Your task to perform on an android device: View the shopping cart on walmart.com. Search for "macbook pro 13 inch" on walmart.com, select the first entry, add it to the cart, then select checkout. Image 0: 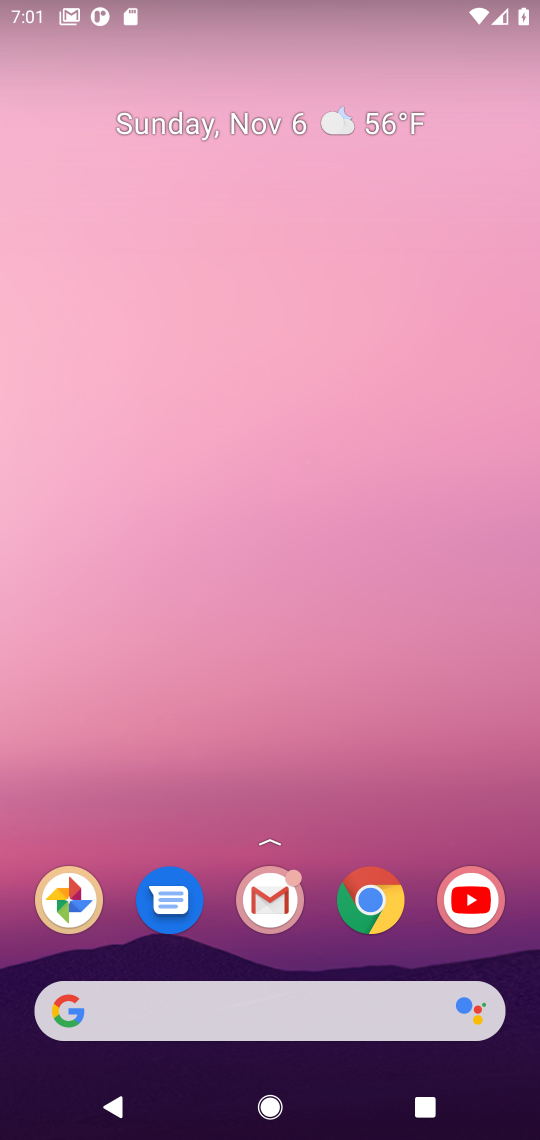
Step 0: drag from (334, 895) to (409, 99)
Your task to perform on an android device: View the shopping cart on walmart.com. Search for "macbook pro 13 inch" on walmart.com, select the first entry, add it to the cart, then select checkout. Image 1: 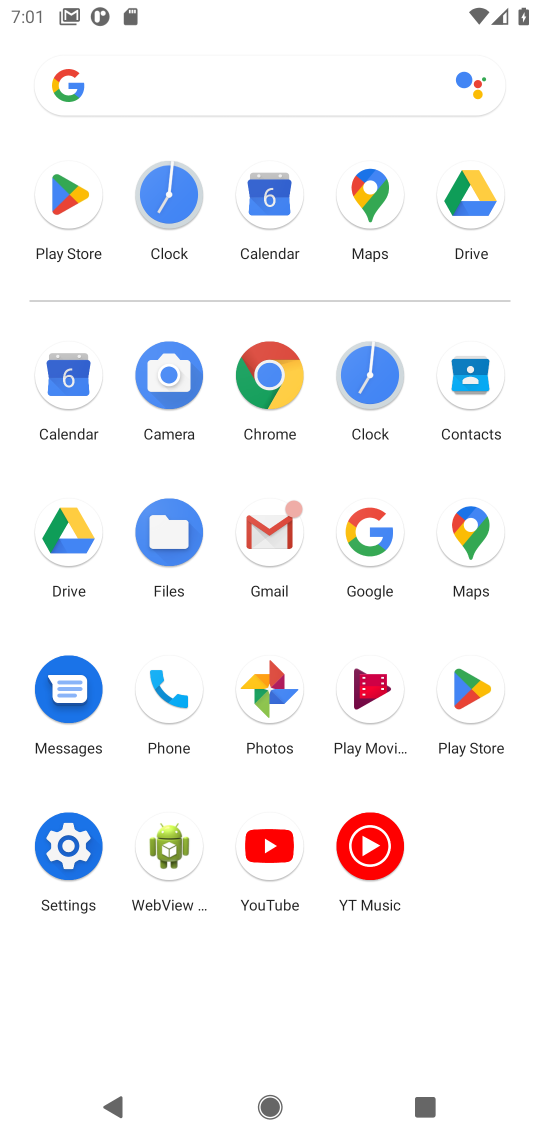
Step 1: click (275, 374)
Your task to perform on an android device: View the shopping cart on walmart.com. Search for "macbook pro 13 inch" on walmart.com, select the first entry, add it to the cart, then select checkout. Image 2: 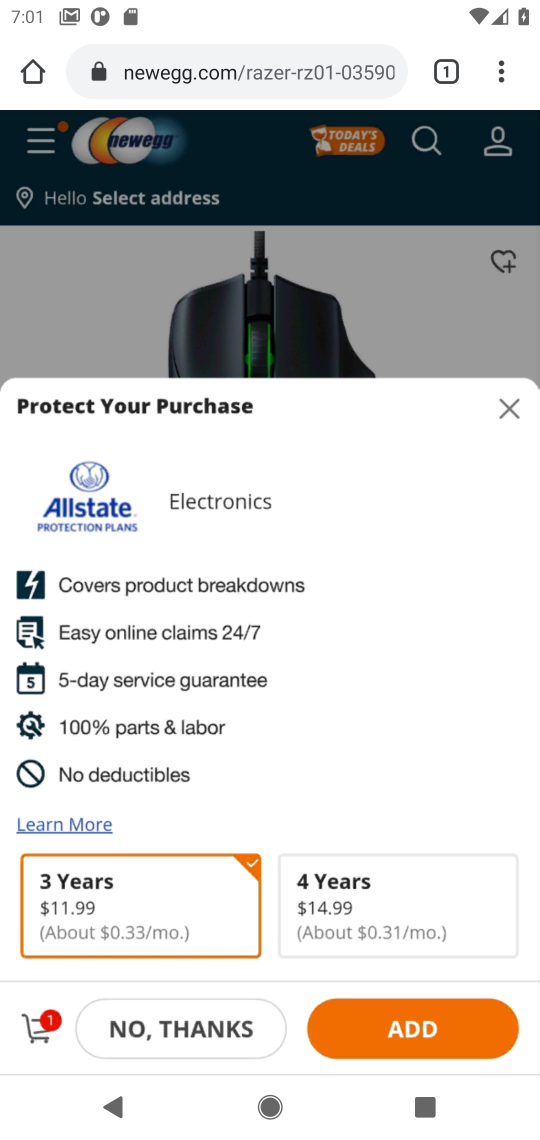
Step 2: click (338, 77)
Your task to perform on an android device: View the shopping cart on walmart.com. Search for "macbook pro 13 inch" on walmart.com, select the first entry, add it to the cart, then select checkout. Image 3: 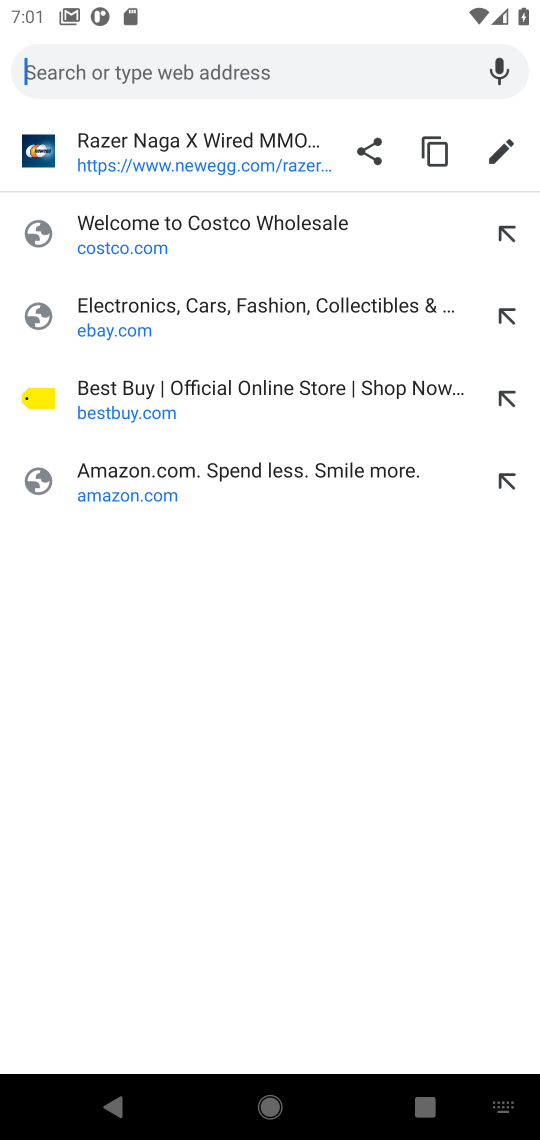
Step 3: type "walmart.com"
Your task to perform on an android device: View the shopping cart on walmart.com. Search for "macbook pro 13 inch" on walmart.com, select the first entry, add it to the cart, then select checkout. Image 4: 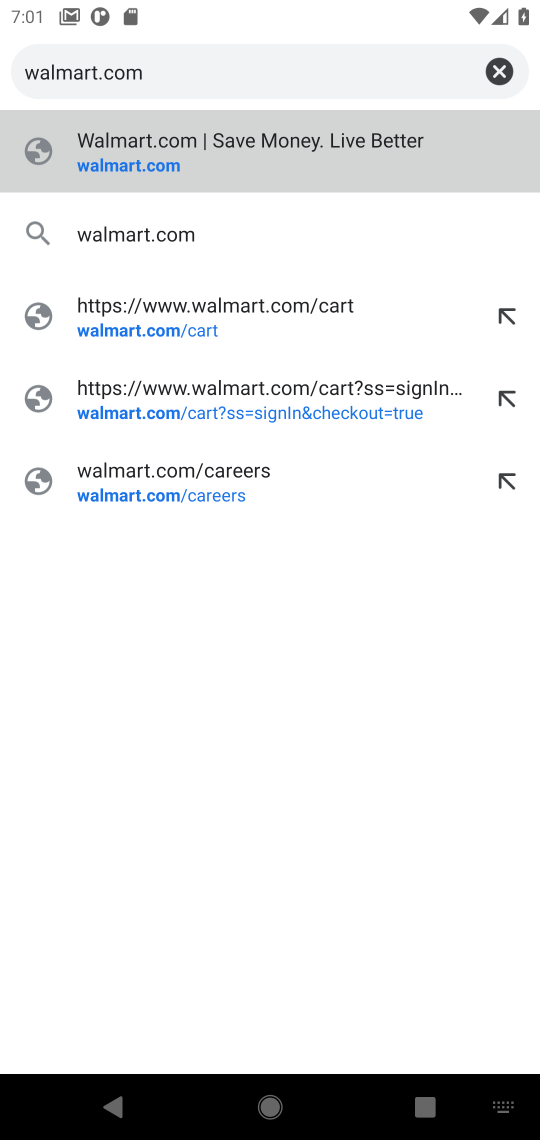
Step 4: press enter
Your task to perform on an android device: View the shopping cart on walmart.com. Search for "macbook pro 13 inch" on walmart.com, select the first entry, add it to the cart, then select checkout. Image 5: 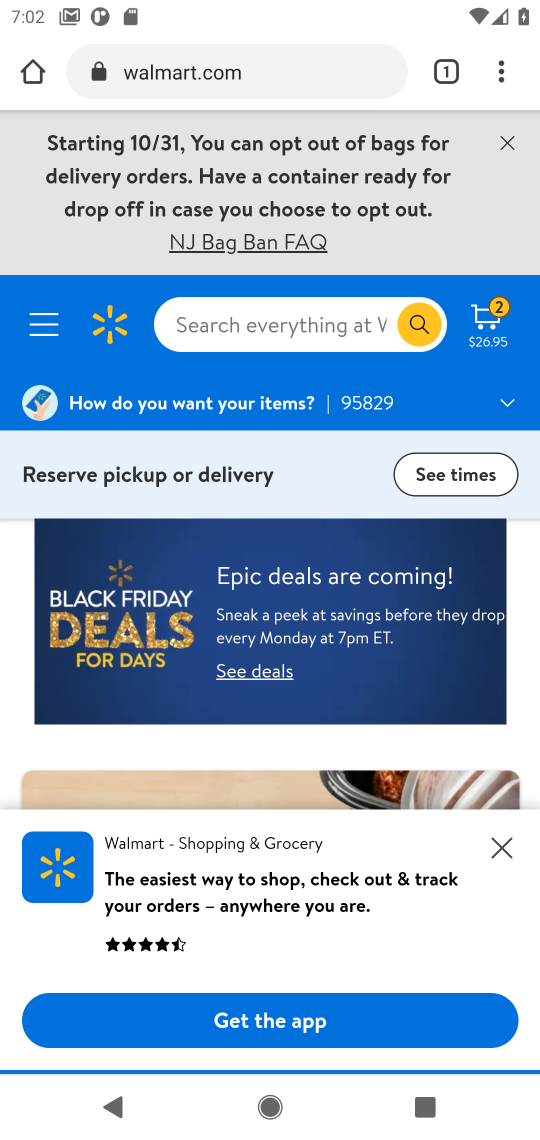
Step 5: click (322, 319)
Your task to perform on an android device: View the shopping cart on walmart.com. Search for "macbook pro 13 inch" on walmart.com, select the first entry, add it to the cart, then select checkout. Image 6: 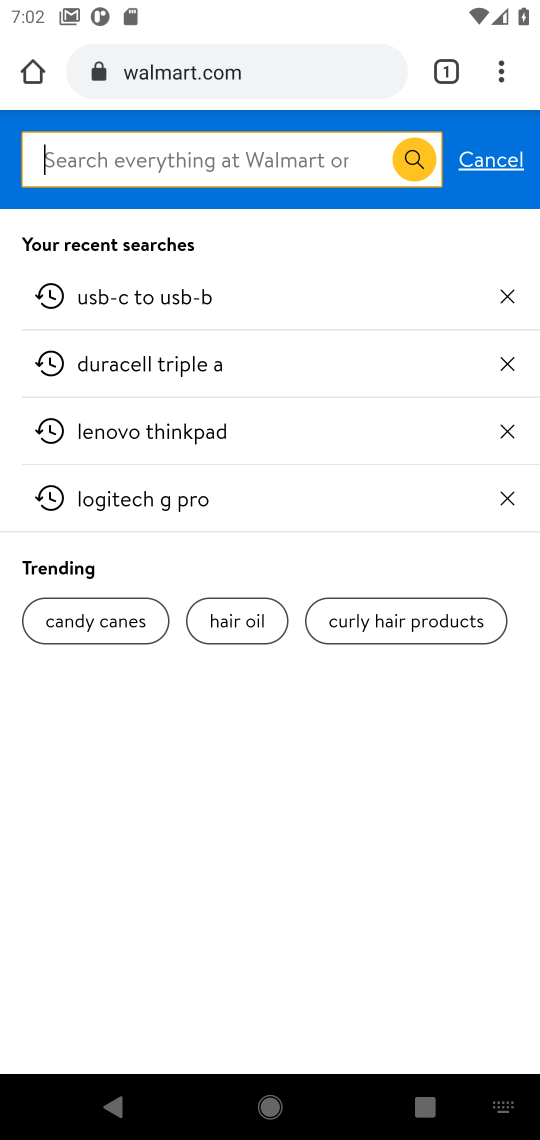
Step 6: type "macbook pro 13 inch"
Your task to perform on an android device: View the shopping cart on walmart.com. Search for "macbook pro 13 inch" on walmart.com, select the first entry, add it to the cart, then select checkout. Image 7: 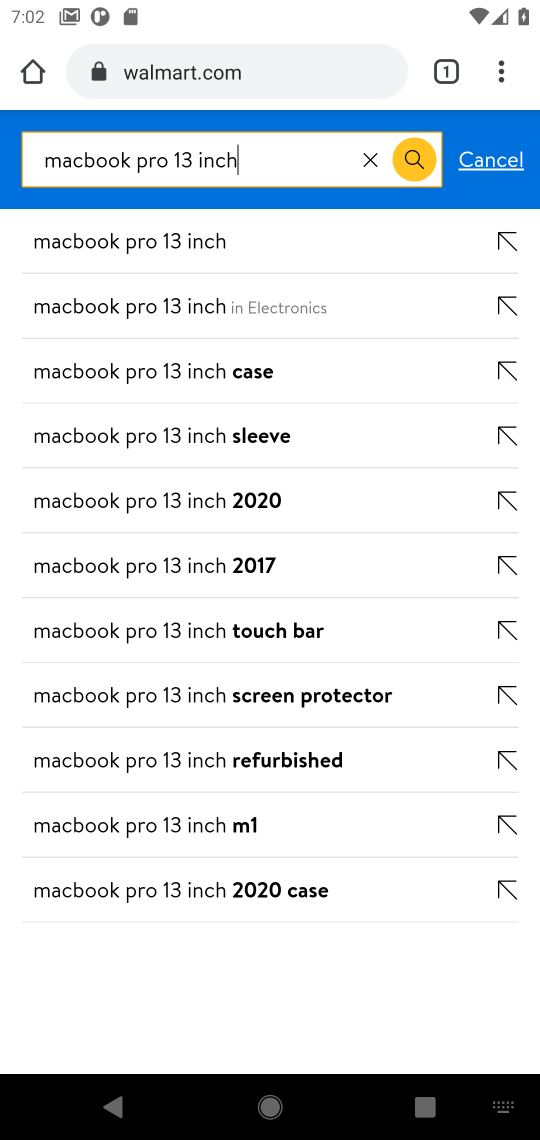
Step 7: press enter
Your task to perform on an android device: View the shopping cart on walmart.com. Search for "macbook pro 13 inch" on walmart.com, select the first entry, add it to the cart, then select checkout. Image 8: 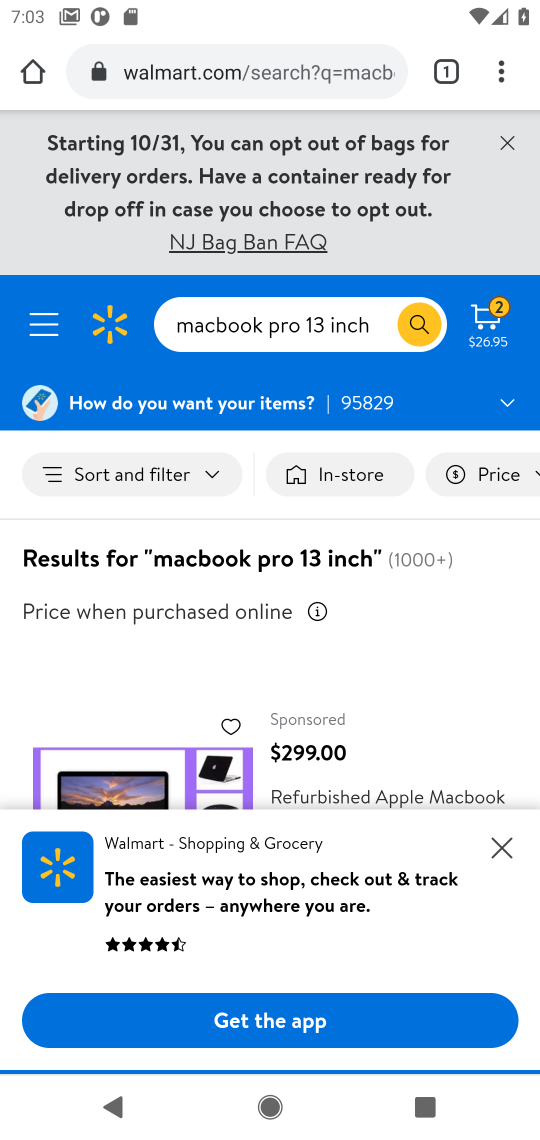
Step 8: drag from (413, 694) to (354, 24)
Your task to perform on an android device: View the shopping cart on walmart.com. Search for "macbook pro 13 inch" on walmart.com, select the first entry, add it to the cart, then select checkout. Image 9: 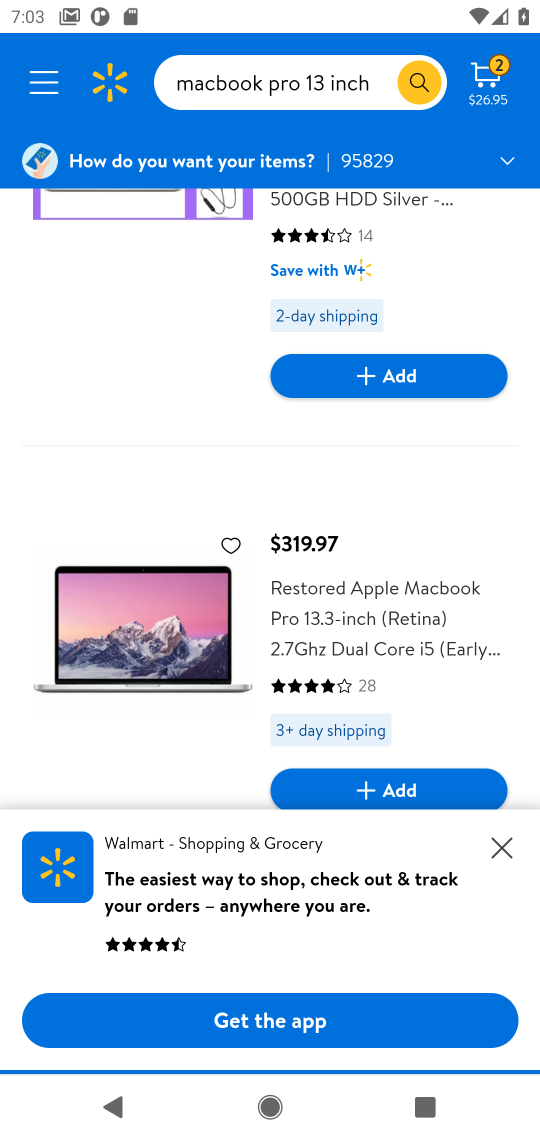
Step 9: drag from (435, 555) to (448, 248)
Your task to perform on an android device: View the shopping cart on walmart.com. Search for "macbook pro 13 inch" on walmart.com, select the first entry, add it to the cart, then select checkout. Image 10: 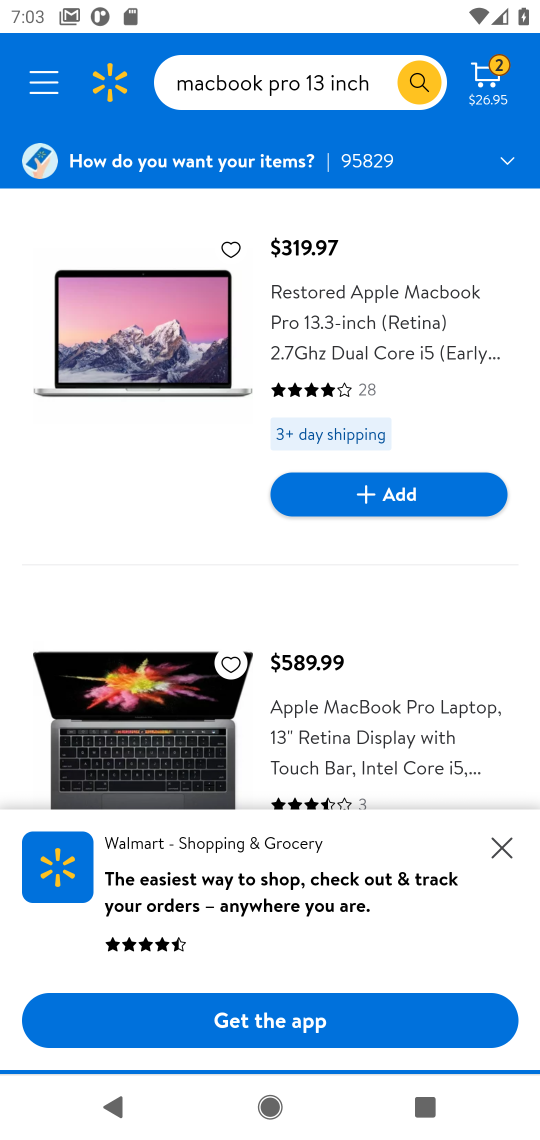
Step 10: drag from (389, 262) to (312, 894)
Your task to perform on an android device: View the shopping cart on walmart.com. Search for "macbook pro 13 inch" on walmart.com, select the first entry, add it to the cart, then select checkout. Image 11: 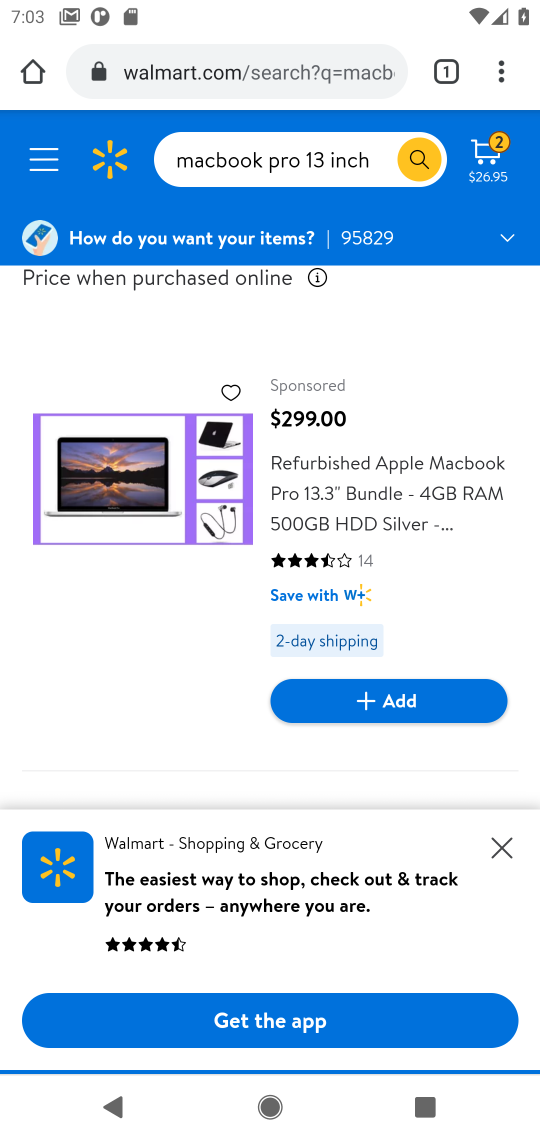
Step 11: drag from (271, 372) to (339, 352)
Your task to perform on an android device: View the shopping cart on walmart.com. Search for "macbook pro 13 inch" on walmart.com, select the first entry, add it to the cart, then select checkout. Image 12: 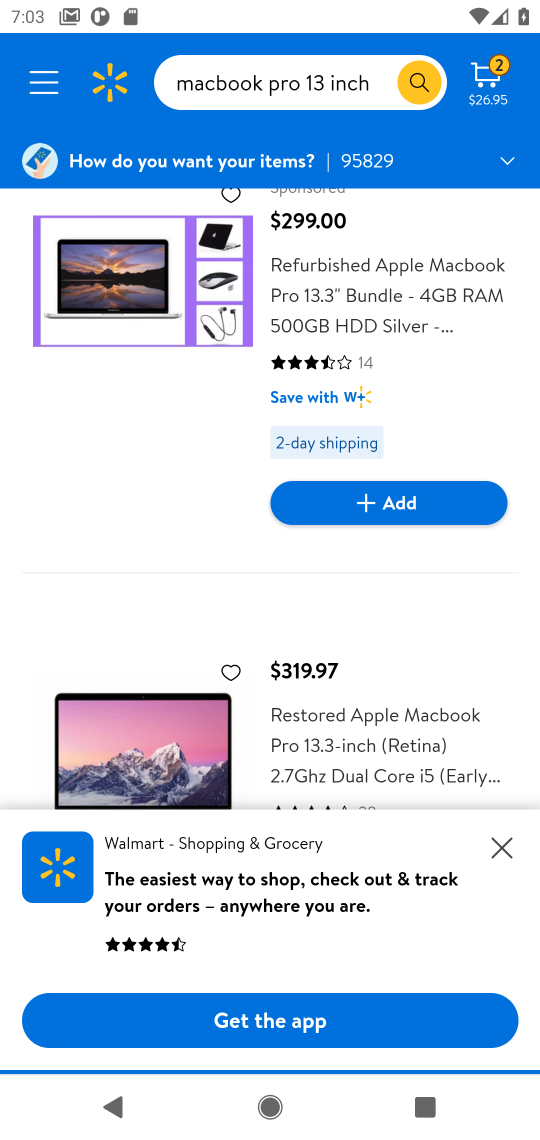
Step 12: drag from (336, 651) to (343, 278)
Your task to perform on an android device: View the shopping cart on walmart.com. Search for "macbook pro 13 inch" on walmart.com, select the first entry, add it to the cart, then select checkout. Image 13: 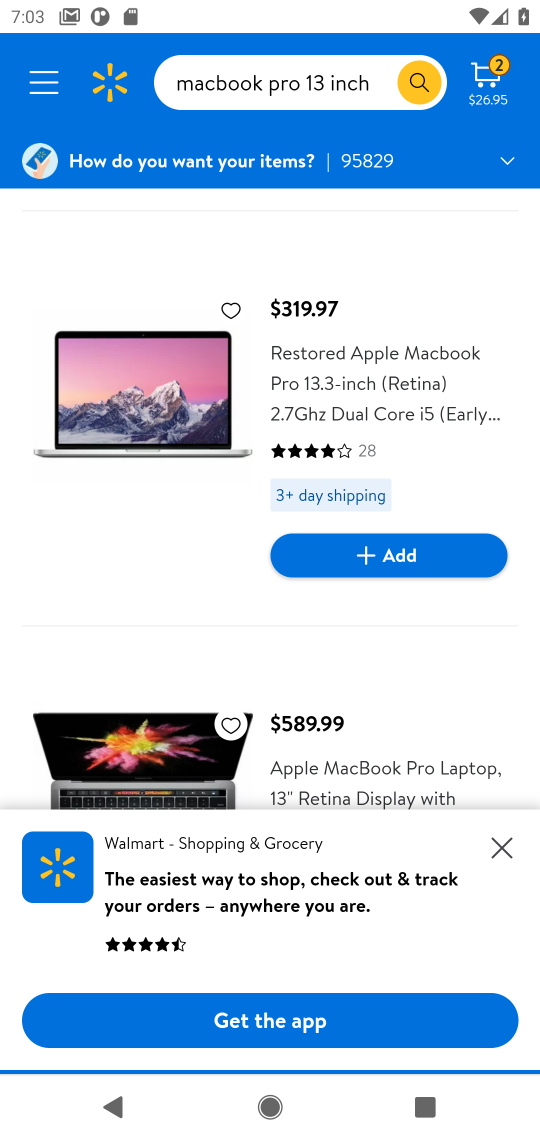
Step 13: drag from (371, 454) to (403, 236)
Your task to perform on an android device: View the shopping cart on walmart.com. Search for "macbook pro 13 inch" on walmart.com, select the first entry, add it to the cart, then select checkout. Image 14: 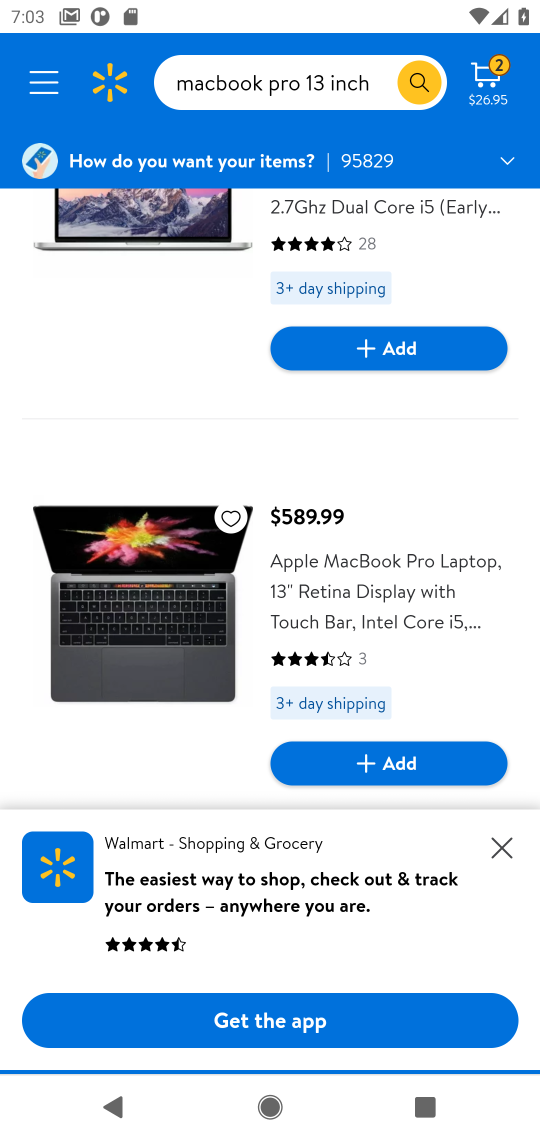
Step 14: drag from (402, 684) to (419, 515)
Your task to perform on an android device: View the shopping cart on walmart.com. Search for "macbook pro 13 inch" on walmart.com, select the first entry, add it to the cart, then select checkout. Image 15: 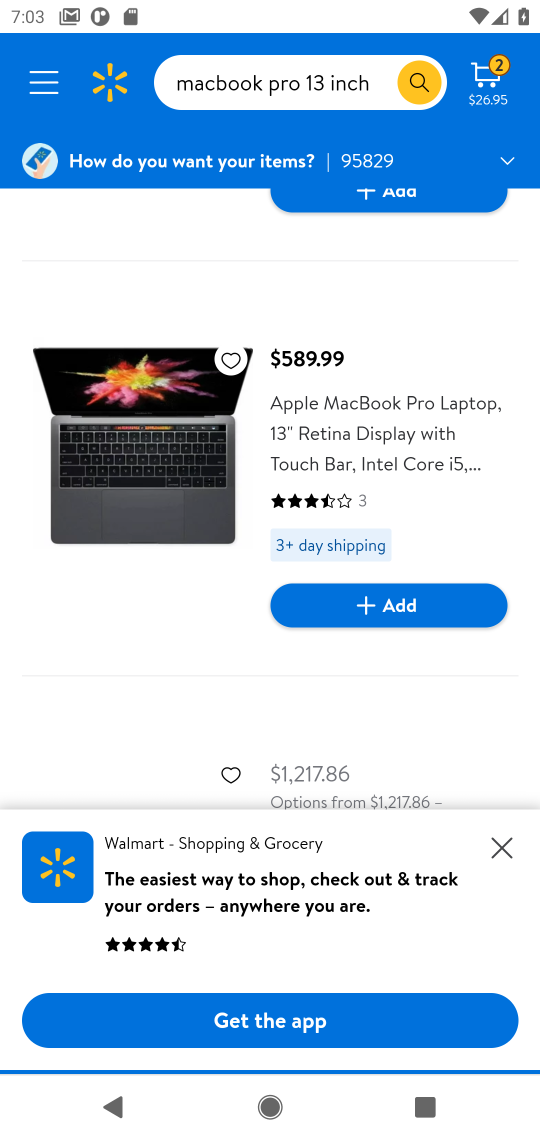
Step 15: click (403, 612)
Your task to perform on an android device: View the shopping cart on walmart.com. Search for "macbook pro 13 inch" on walmart.com, select the first entry, add it to the cart, then select checkout. Image 16: 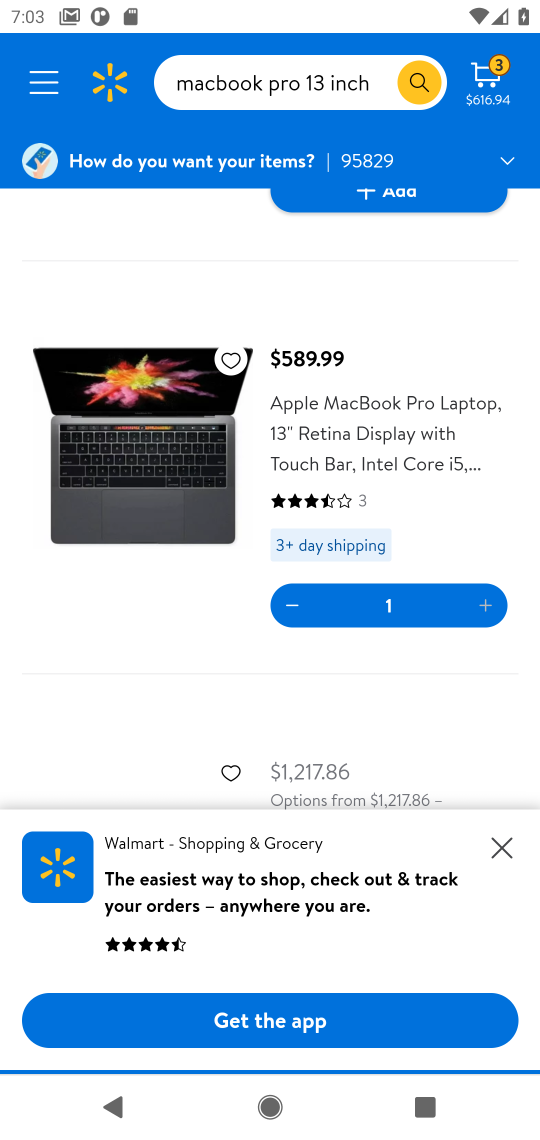
Step 16: click (482, 68)
Your task to perform on an android device: View the shopping cart on walmart.com. Search for "macbook pro 13 inch" on walmart.com, select the first entry, add it to the cart, then select checkout. Image 17: 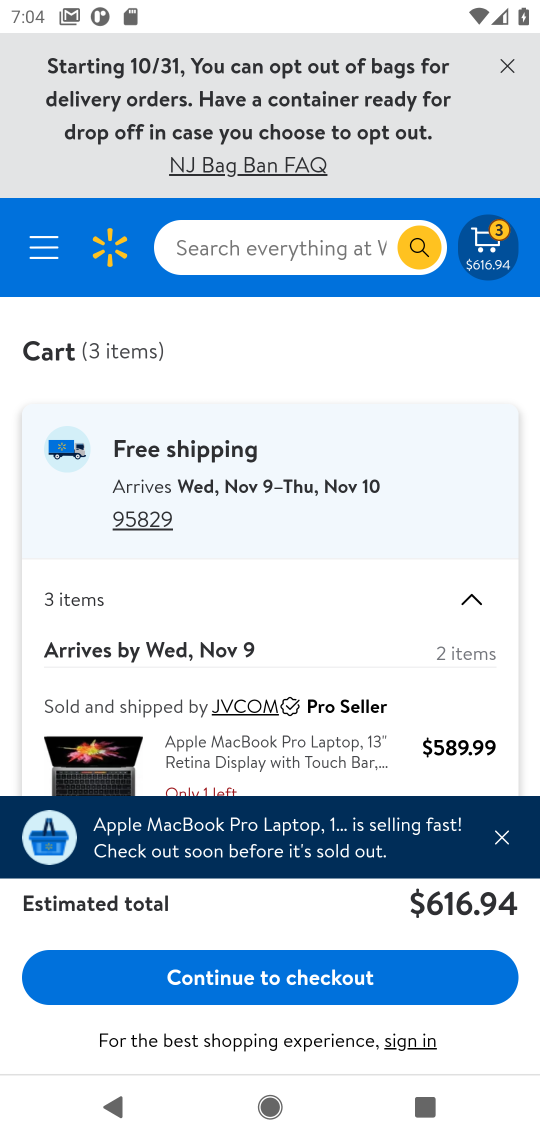
Step 17: click (332, 976)
Your task to perform on an android device: View the shopping cart on walmart.com. Search for "macbook pro 13 inch" on walmart.com, select the first entry, add it to the cart, then select checkout. Image 18: 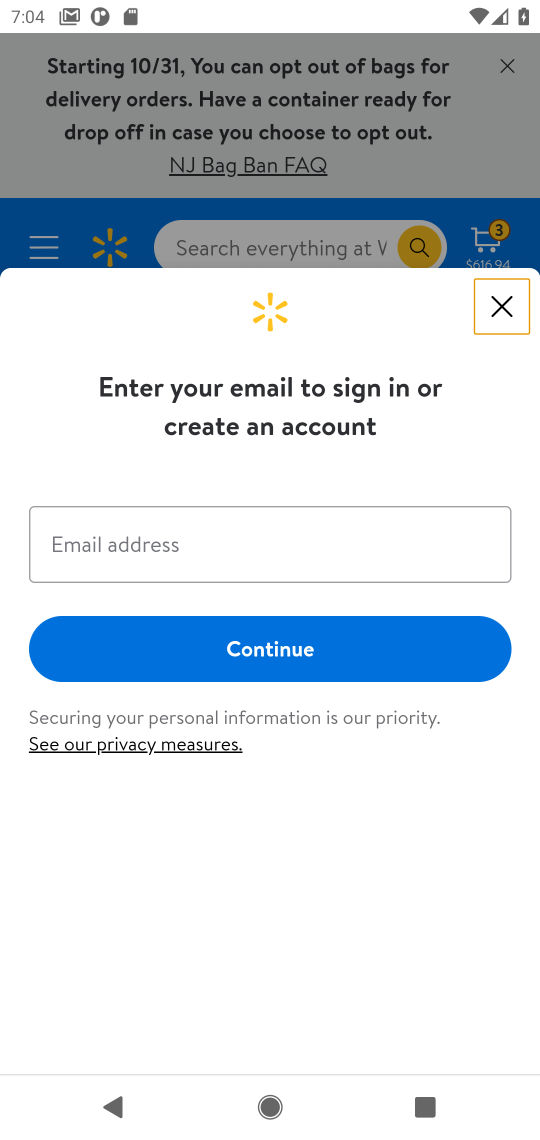
Step 18: task complete